Your task to perform on an android device: What's on my calendar today? Image 0: 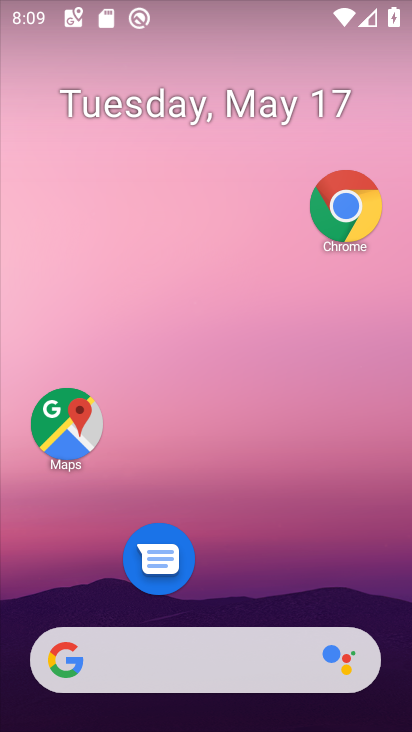
Step 0: drag from (229, 652) to (265, 12)
Your task to perform on an android device: What's on my calendar today? Image 1: 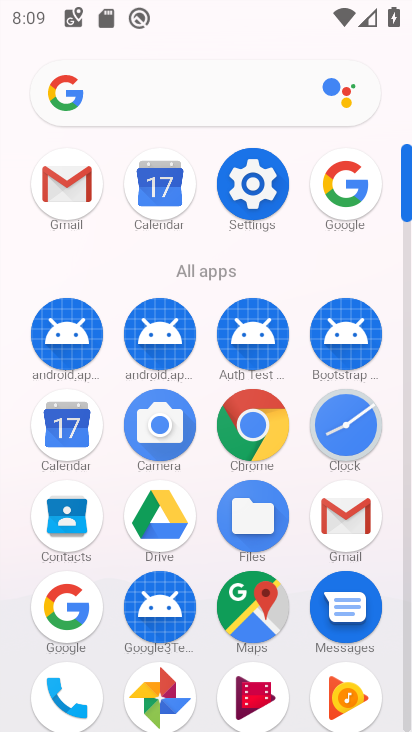
Step 1: click (82, 437)
Your task to perform on an android device: What's on my calendar today? Image 2: 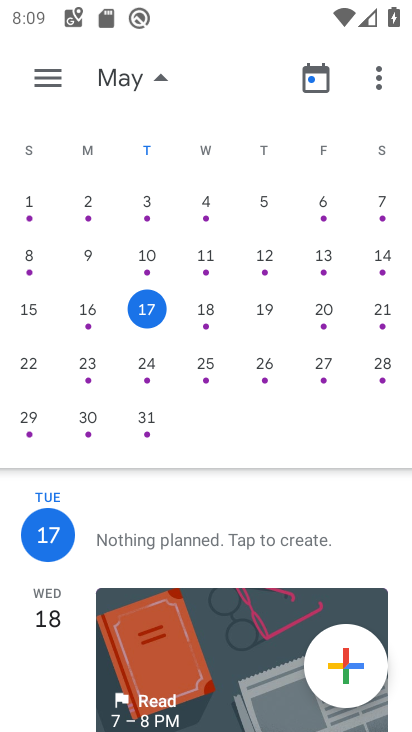
Step 2: click (153, 306)
Your task to perform on an android device: What's on my calendar today? Image 3: 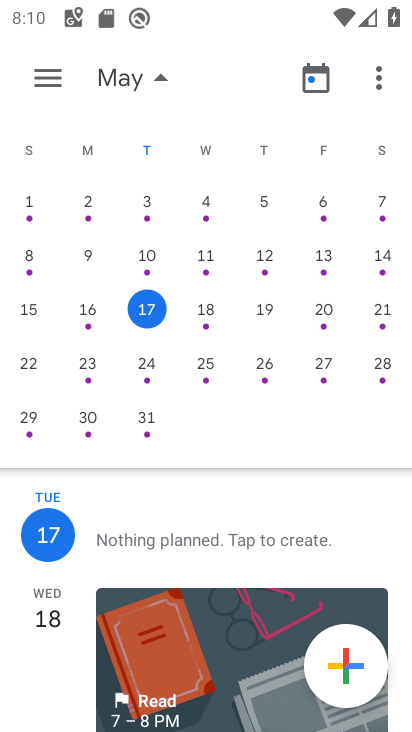
Step 3: task complete